Your task to perform on an android device: Open my contact list Image 0: 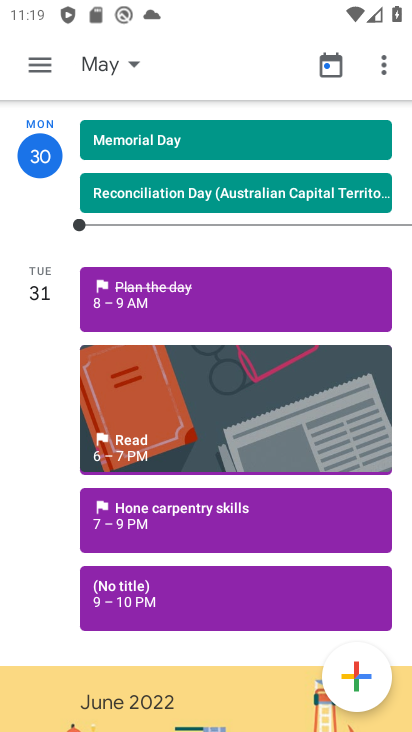
Step 0: press home button
Your task to perform on an android device: Open my contact list Image 1: 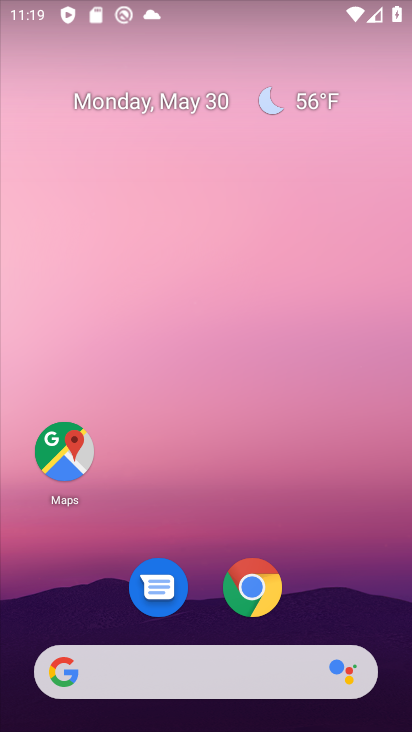
Step 1: drag from (317, 627) to (297, 13)
Your task to perform on an android device: Open my contact list Image 2: 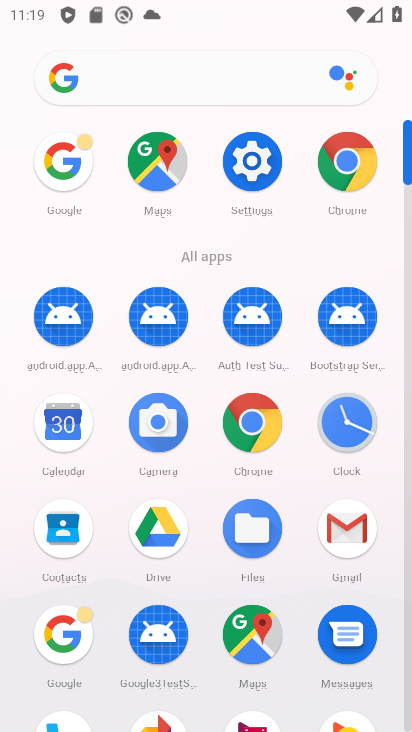
Step 2: click (61, 536)
Your task to perform on an android device: Open my contact list Image 3: 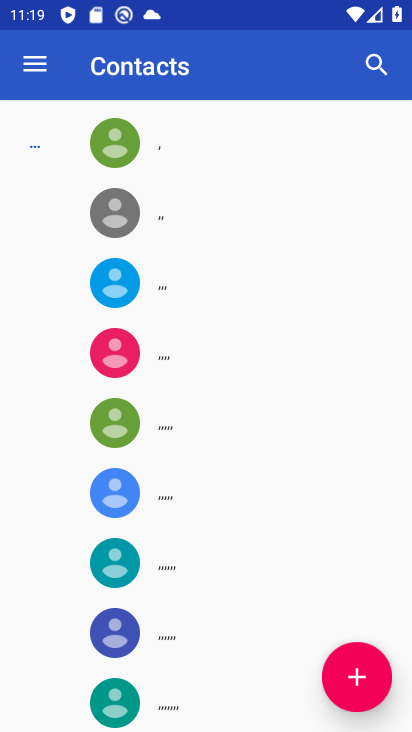
Step 3: task complete